Your task to perform on an android device: toggle wifi Image 0: 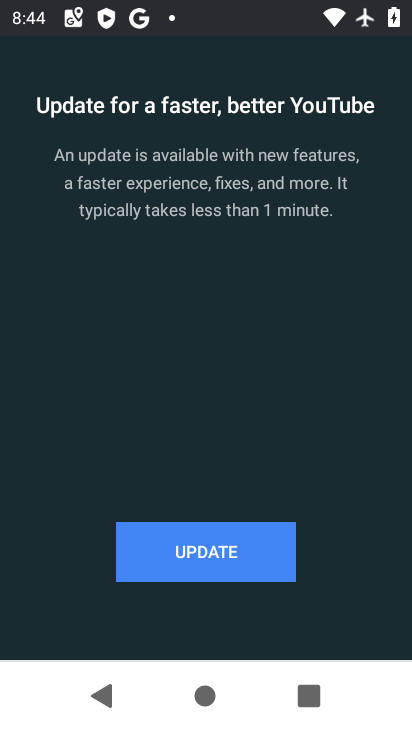
Step 0: press back button
Your task to perform on an android device: toggle wifi Image 1: 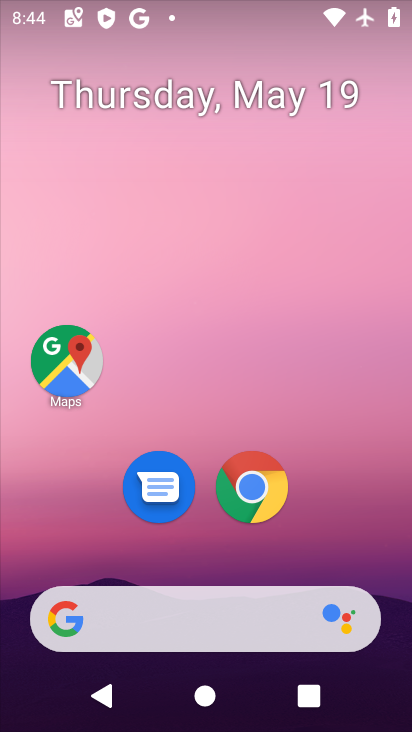
Step 1: drag from (231, 559) to (184, 109)
Your task to perform on an android device: toggle wifi Image 2: 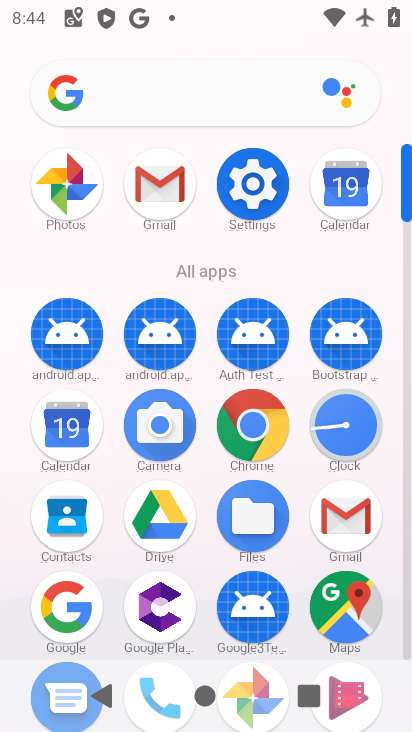
Step 2: click (254, 204)
Your task to perform on an android device: toggle wifi Image 3: 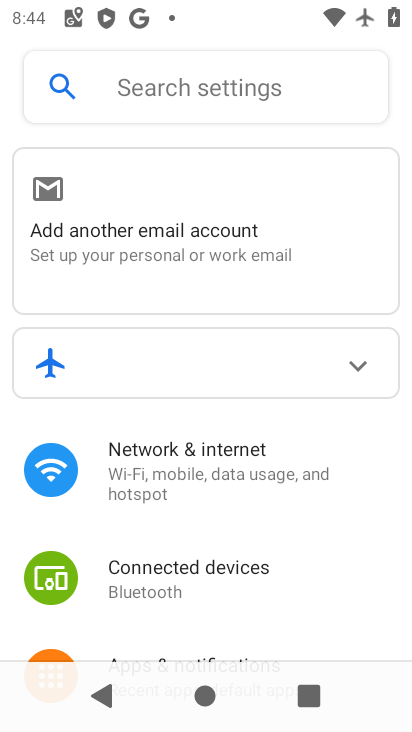
Step 3: click (169, 480)
Your task to perform on an android device: toggle wifi Image 4: 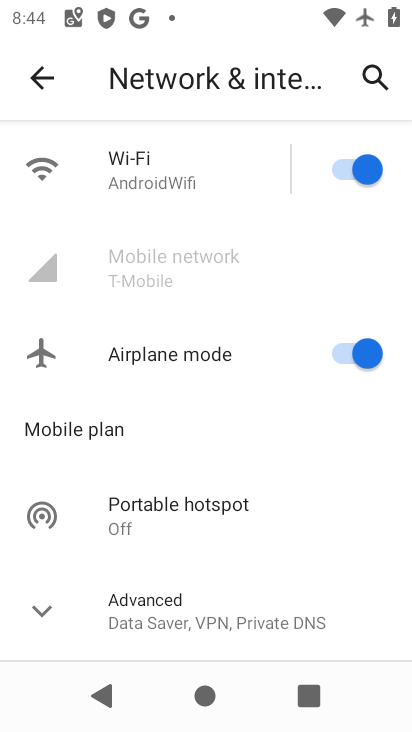
Step 4: click (379, 168)
Your task to perform on an android device: toggle wifi Image 5: 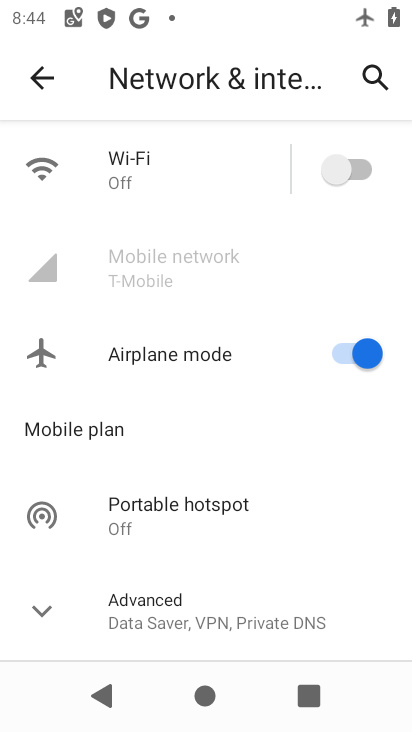
Step 5: task complete